Your task to perform on an android device: Open CNN.com Image 0: 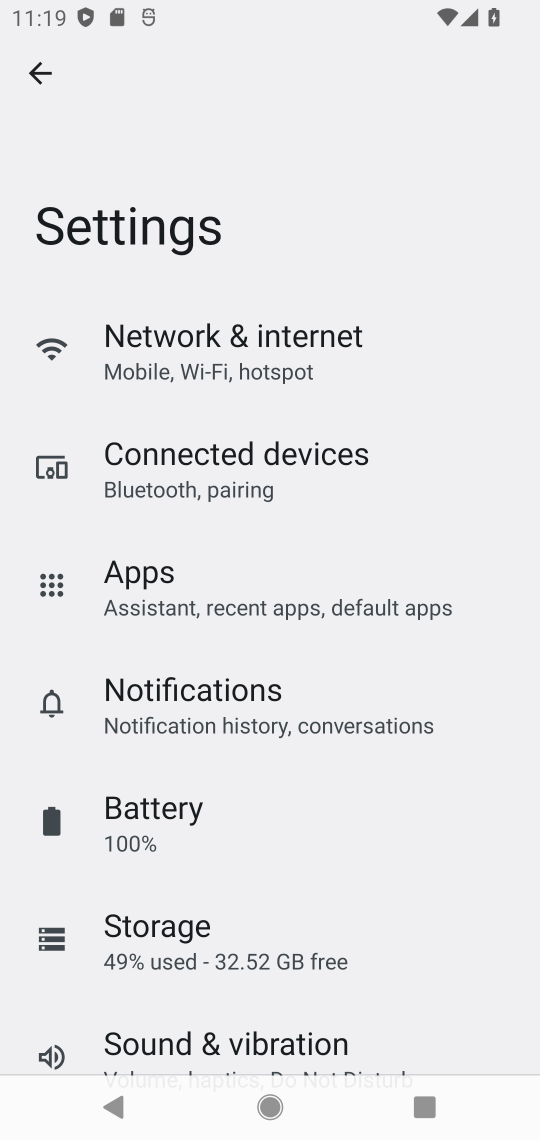
Step 0: press home button
Your task to perform on an android device: Open CNN.com Image 1: 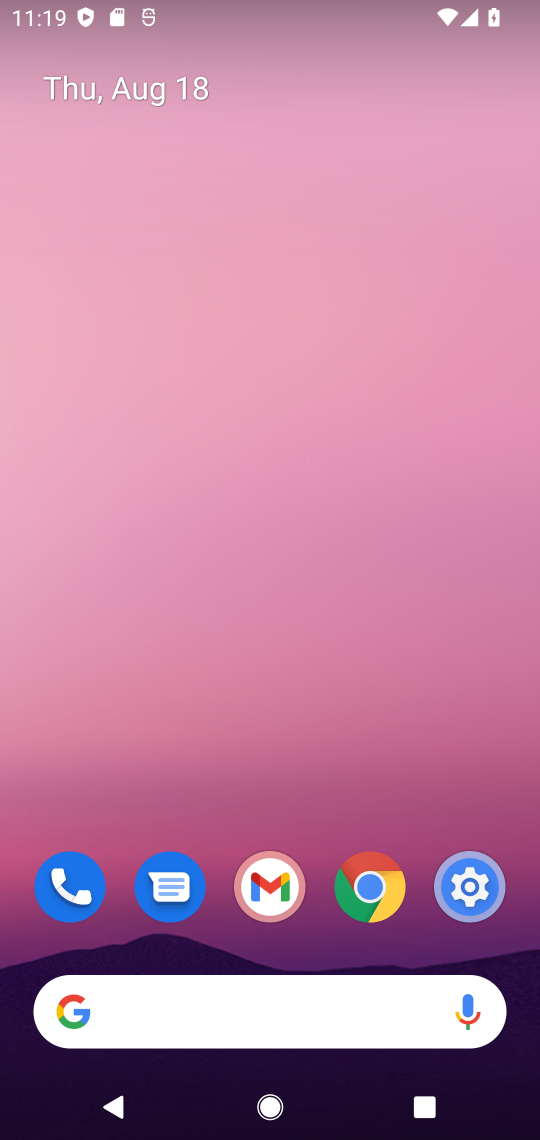
Step 1: click (140, 1010)
Your task to perform on an android device: Open CNN.com Image 2: 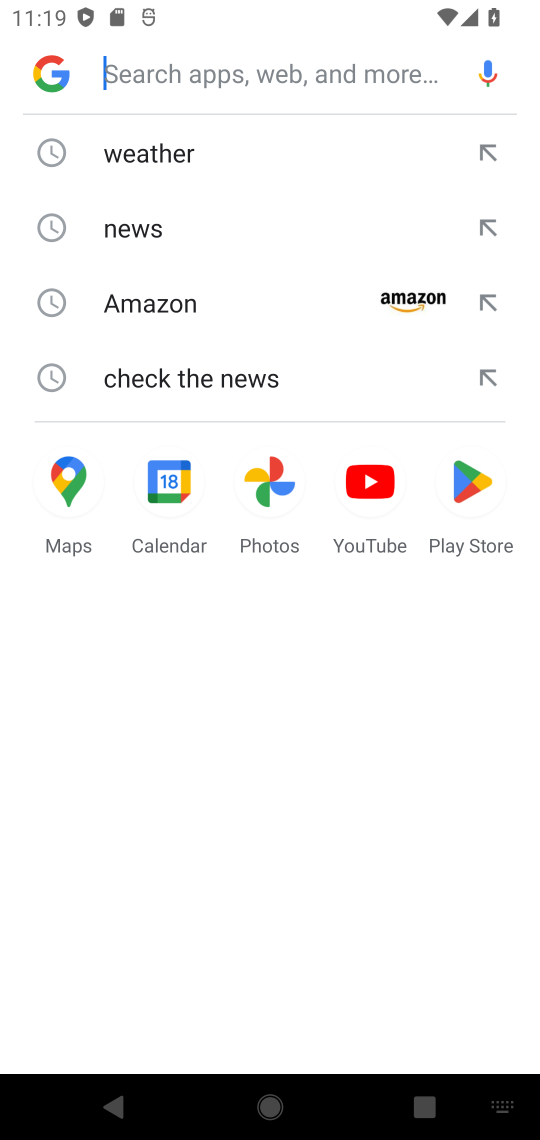
Step 2: type "CNN.com"
Your task to perform on an android device: Open CNN.com Image 3: 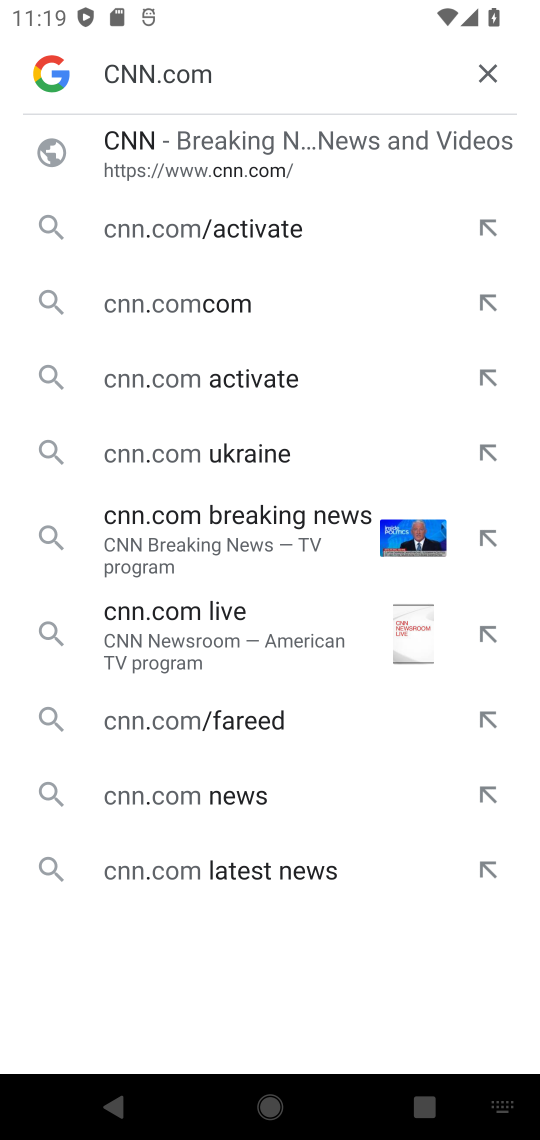
Step 3: click (106, 119)
Your task to perform on an android device: Open CNN.com Image 4: 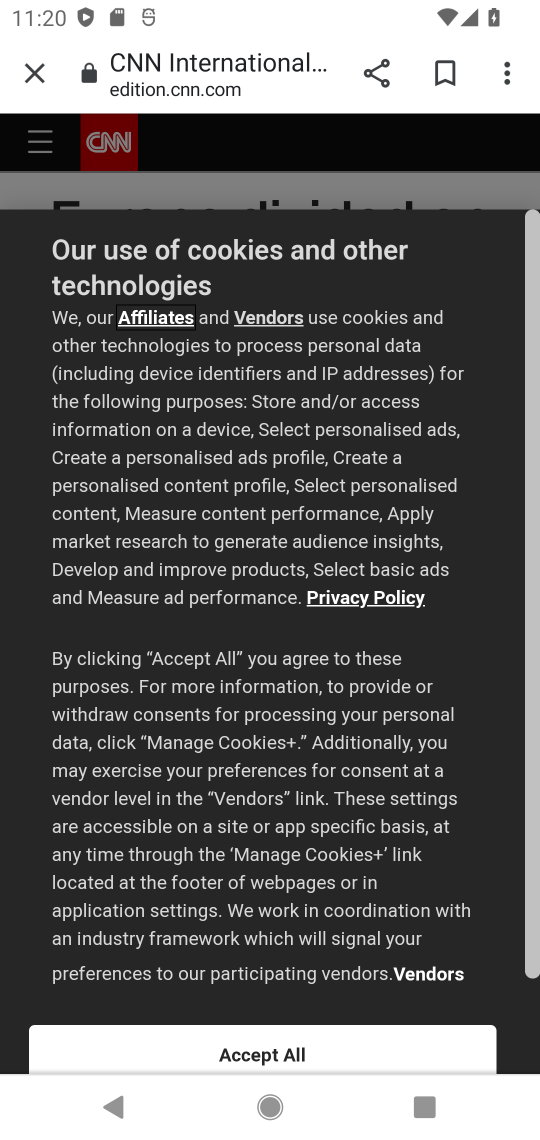
Step 4: task complete